Your task to perform on an android device: turn off priority inbox in the gmail app Image 0: 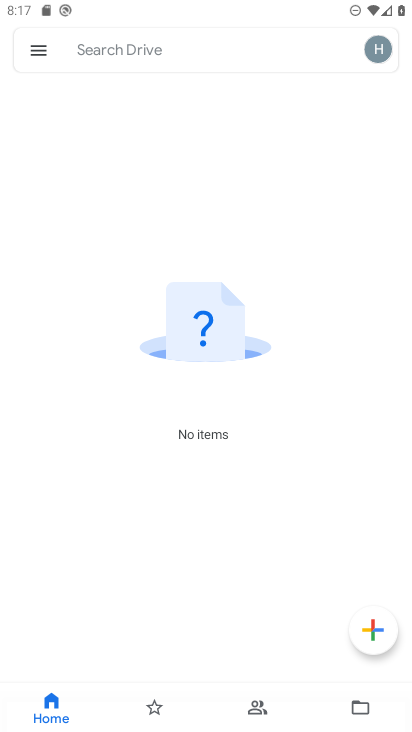
Step 0: press home button
Your task to perform on an android device: turn off priority inbox in the gmail app Image 1: 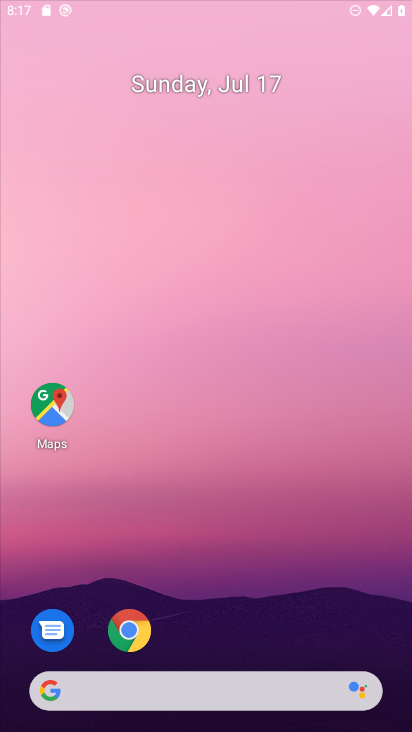
Step 1: drag from (263, 565) to (130, 73)
Your task to perform on an android device: turn off priority inbox in the gmail app Image 2: 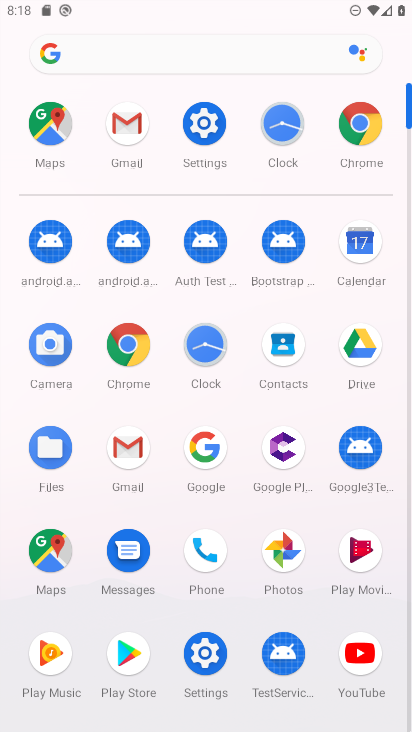
Step 2: click (127, 442)
Your task to perform on an android device: turn off priority inbox in the gmail app Image 3: 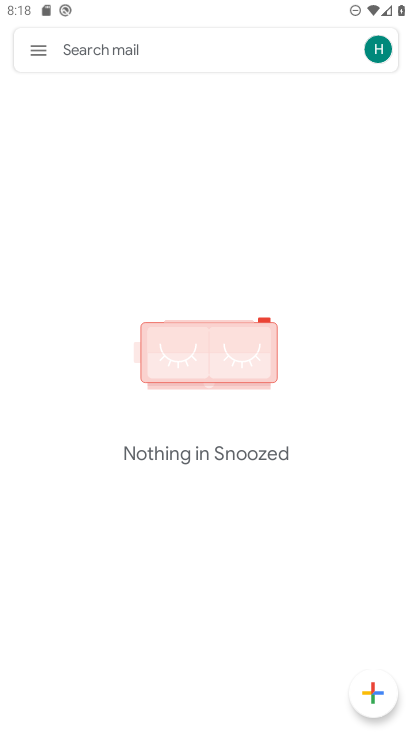
Step 3: click (25, 44)
Your task to perform on an android device: turn off priority inbox in the gmail app Image 4: 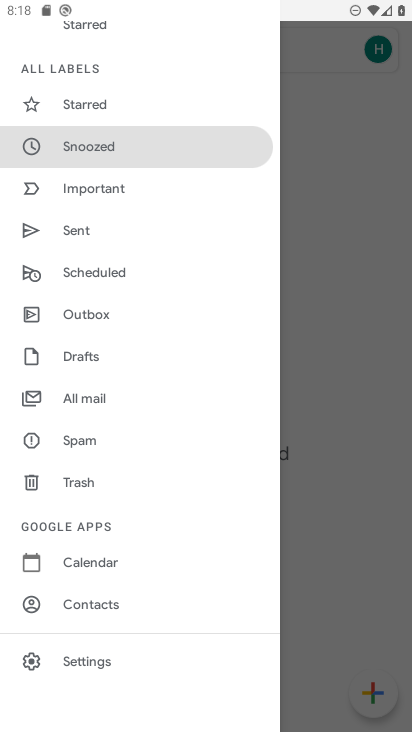
Step 4: click (111, 663)
Your task to perform on an android device: turn off priority inbox in the gmail app Image 5: 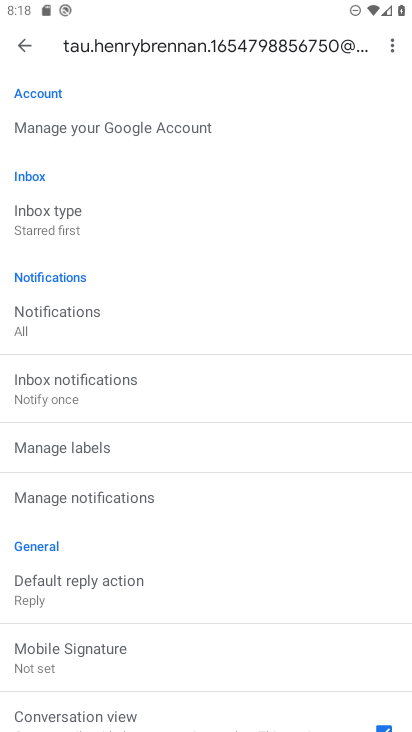
Step 5: click (67, 210)
Your task to perform on an android device: turn off priority inbox in the gmail app Image 6: 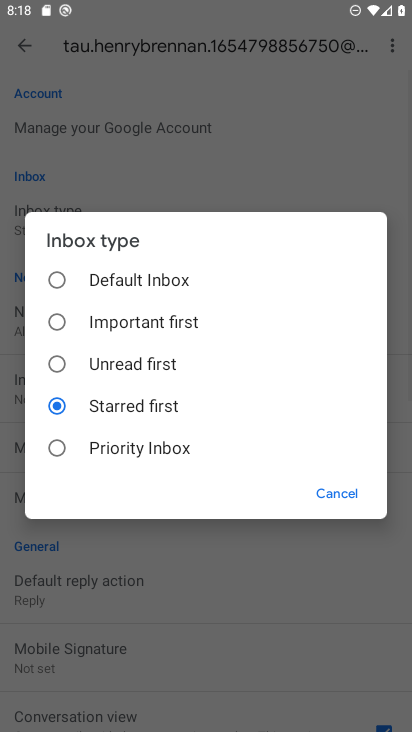
Step 6: click (98, 272)
Your task to perform on an android device: turn off priority inbox in the gmail app Image 7: 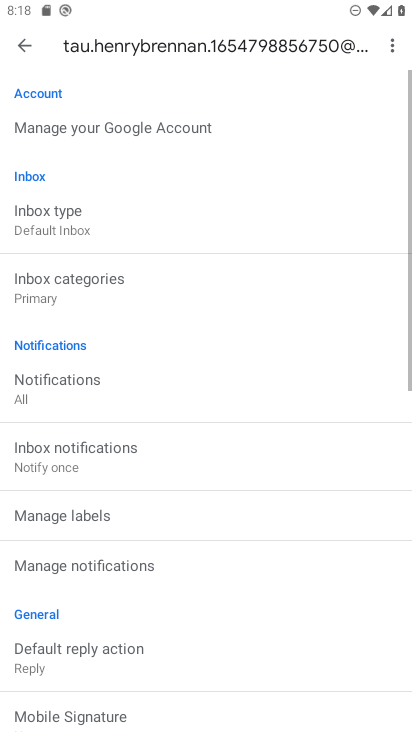
Step 7: task complete